Your task to perform on an android device: turn off location Image 0: 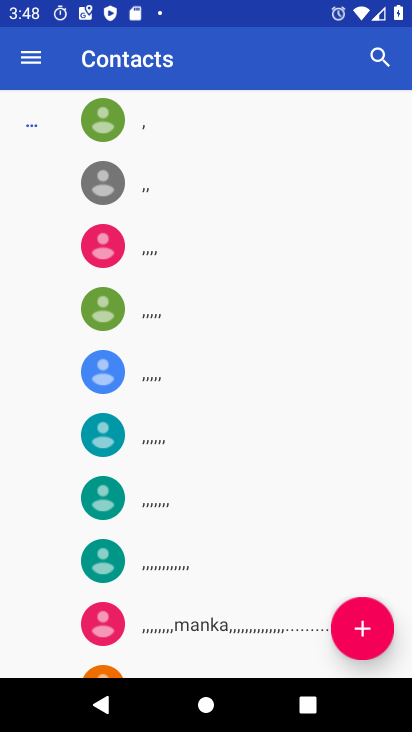
Step 0: press home button
Your task to perform on an android device: turn off location Image 1: 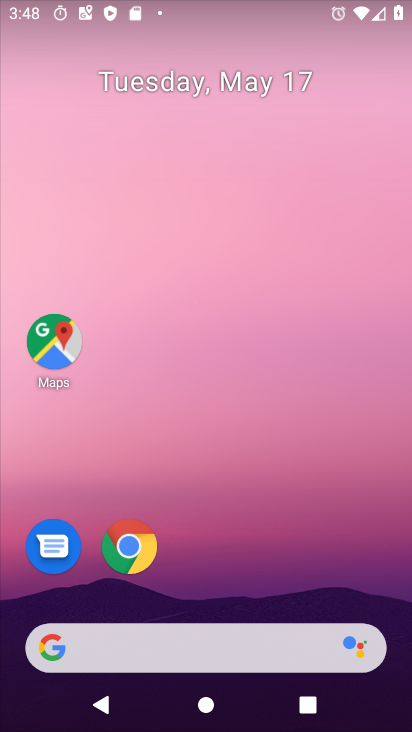
Step 1: drag from (271, 562) to (390, 0)
Your task to perform on an android device: turn off location Image 2: 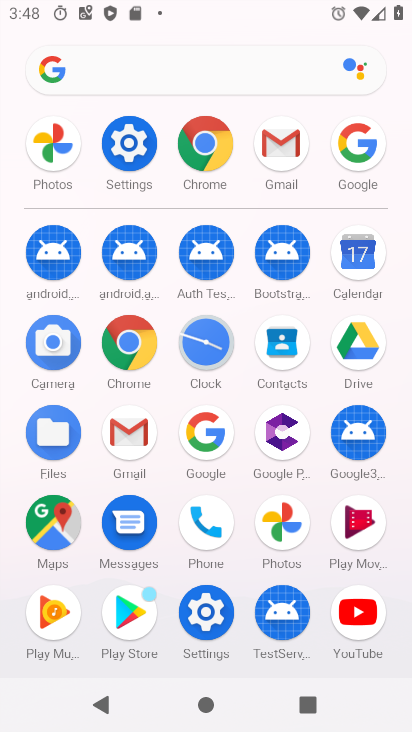
Step 2: click (140, 153)
Your task to perform on an android device: turn off location Image 3: 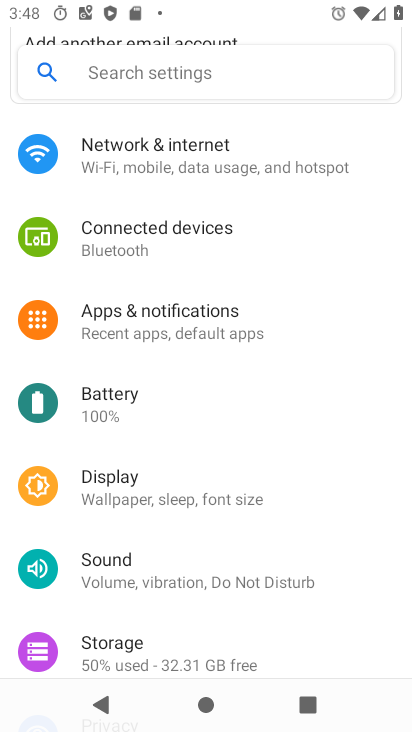
Step 3: drag from (218, 511) to (240, 323)
Your task to perform on an android device: turn off location Image 4: 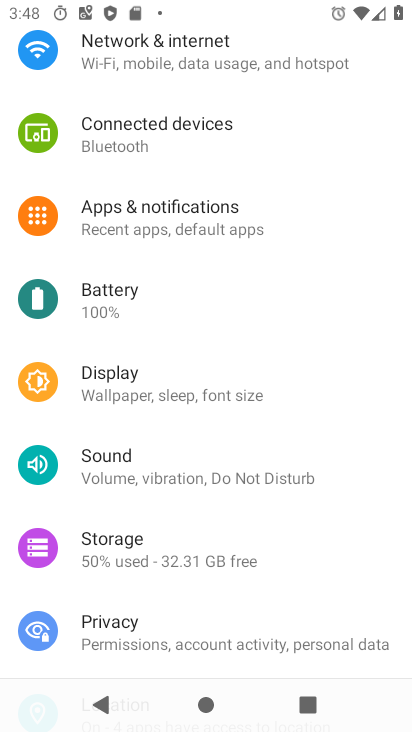
Step 4: drag from (246, 512) to (318, 75)
Your task to perform on an android device: turn off location Image 5: 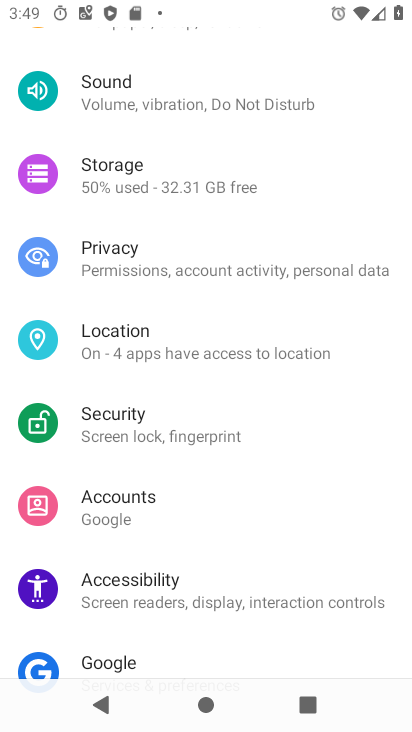
Step 5: click (217, 356)
Your task to perform on an android device: turn off location Image 6: 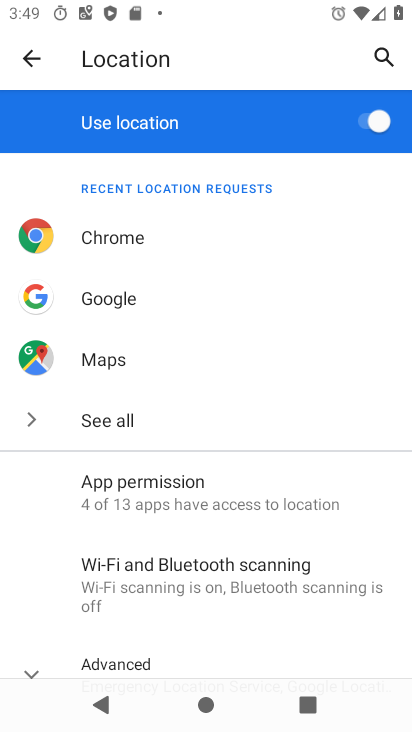
Step 6: click (358, 125)
Your task to perform on an android device: turn off location Image 7: 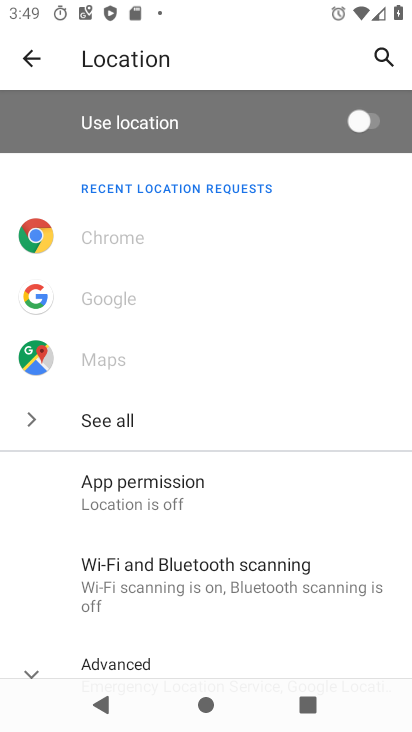
Step 7: task complete